Your task to perform on an android device: Open display settings Image 0: 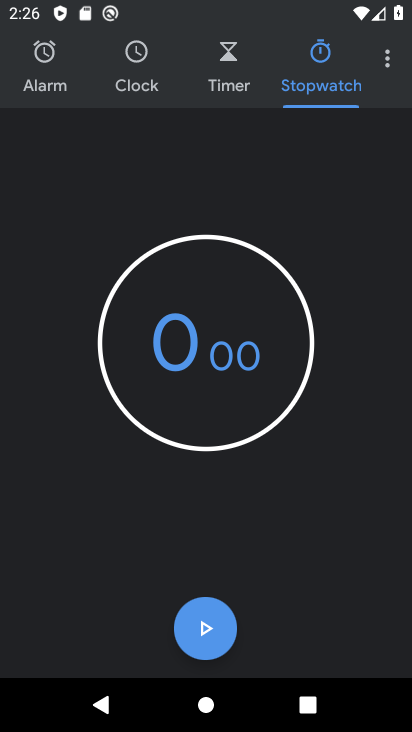
Step 0: press home button
Your task to perform on an android device: Open display settings Image 1: 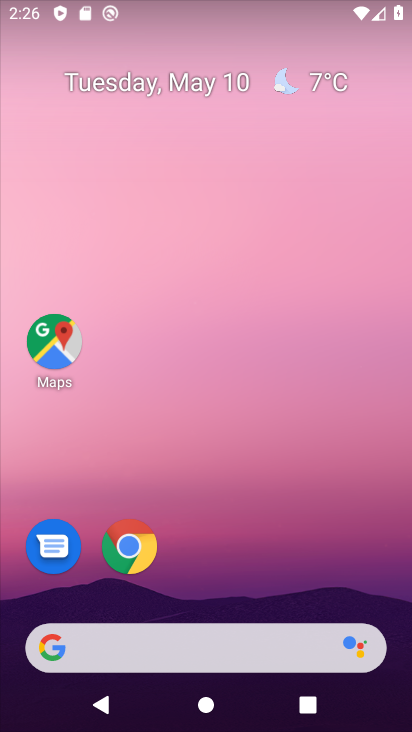
Step 1: drag from (292, 531) to (319, 44)
Your task to perform on an android device: Open display settings Image 2: 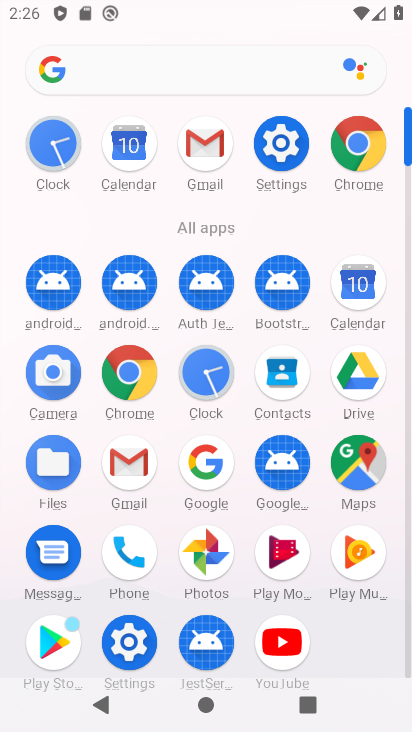
Step 2: click (268, 163)
Your task to perform on an android device: Open display settings Image 3: 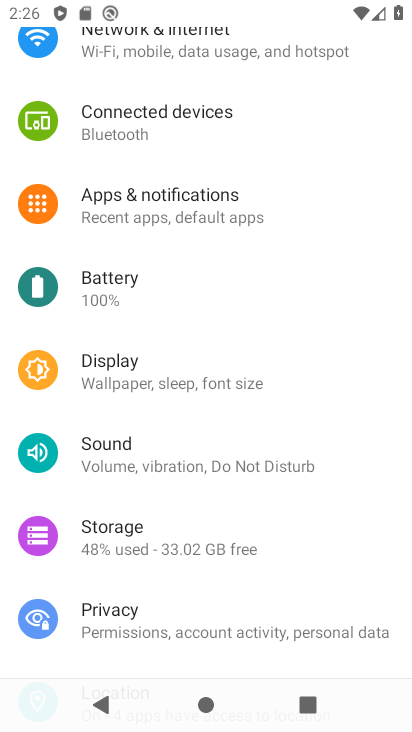
Step 3: click (155, 376)
Your task to perform on an android device: Open display settings Image 4: 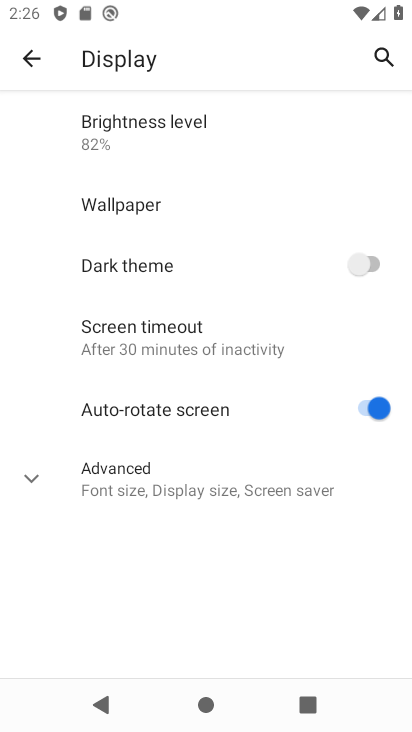
Step 4: task complete